Your task to perform on an android device: Go to notification settings Image 0: 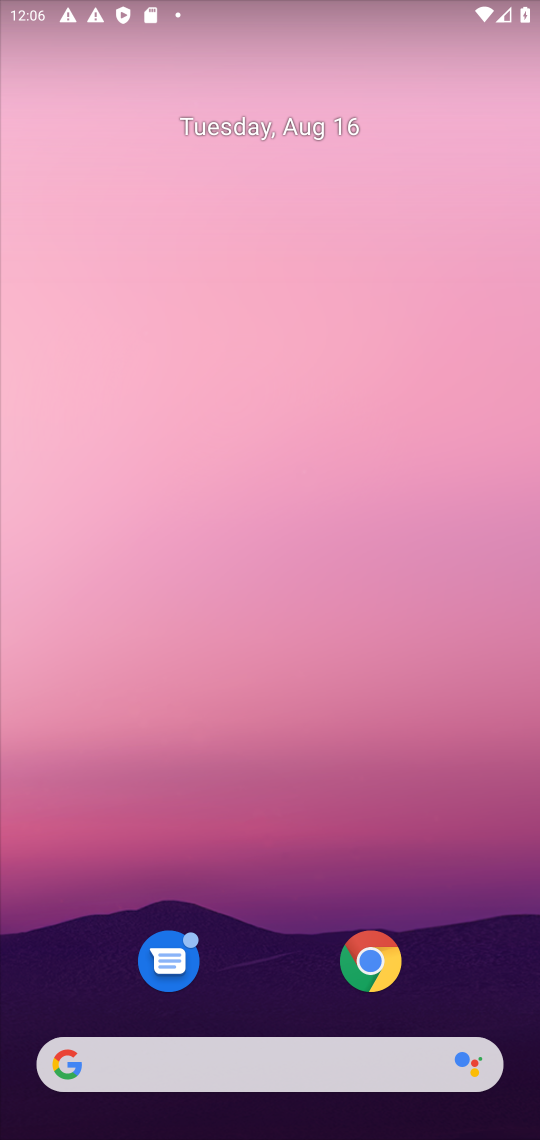
Step 0: drag from (278, 971) to (169, 5)
Your task to perform on an android device: Go to notification settings Image 1: 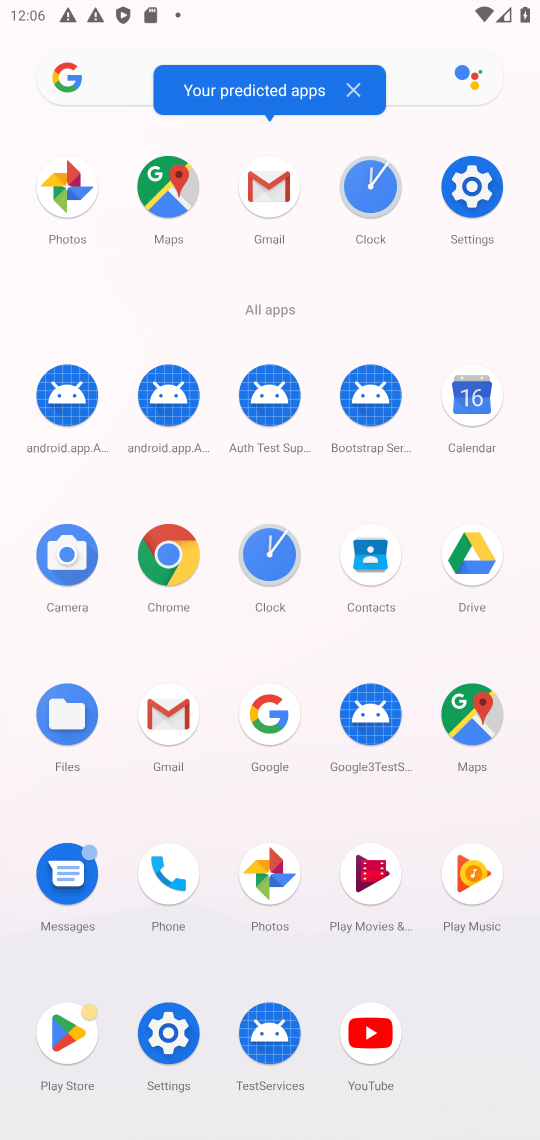
Step 1: click (156, 1026)
Your task to perform on an android device: Go to notification settings Image 2: 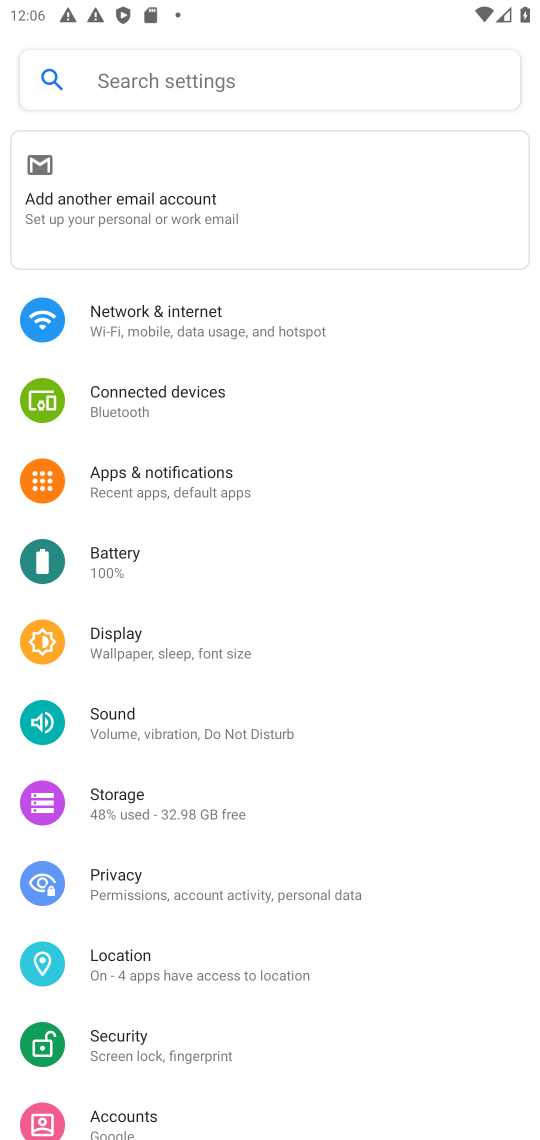
Step 2: click (187, 483)
Your task to perform on an android device: Go to notification settings Image 3: 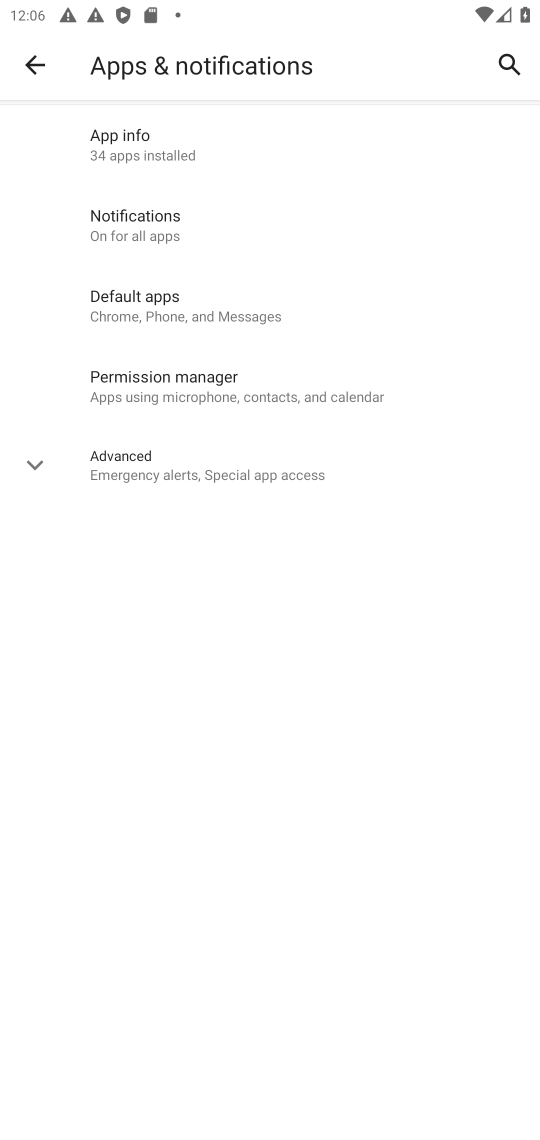
Step 3: click (144, 204)
Your task to perform on an android device: Go to notification settings Image 4: 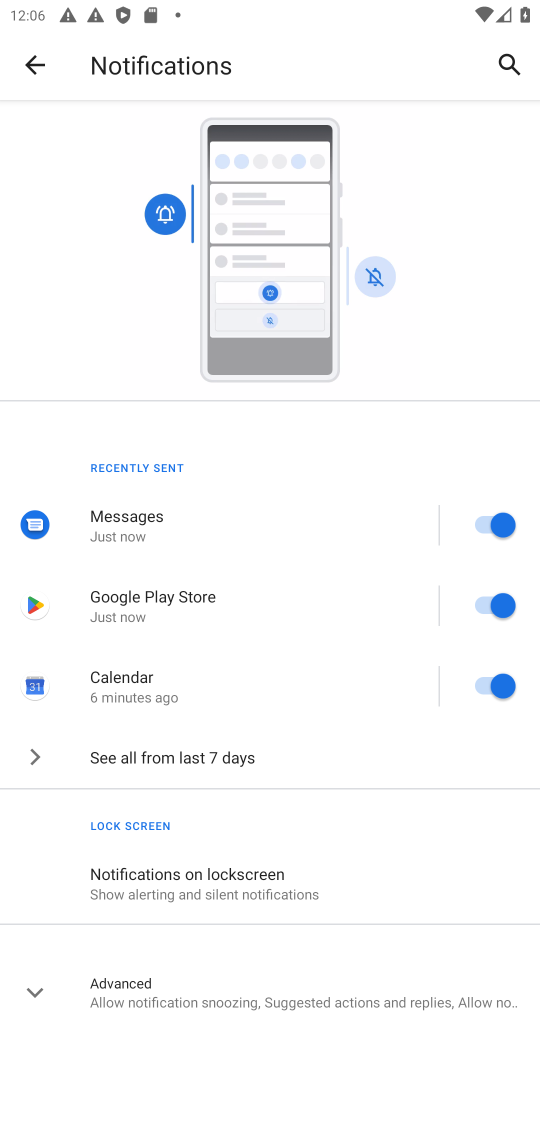
Step 4: task complete